Your task to perform on an android device: Set the phone to "Do not disturb". Image 0: 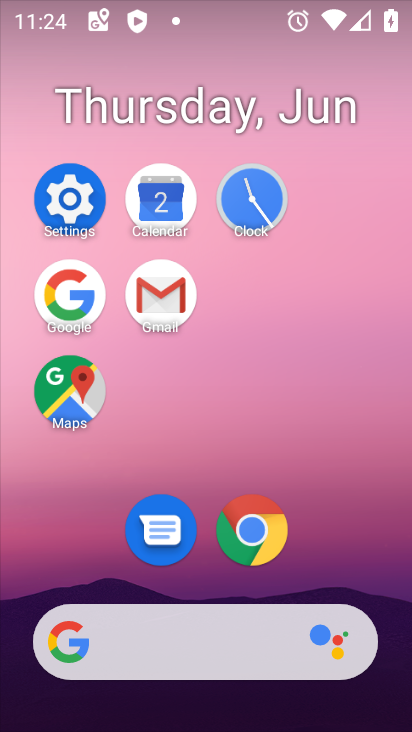
Step 0: click (94, 225)
Your task to perform on an android device: Set the phone to "Do not disturb". Image 1: 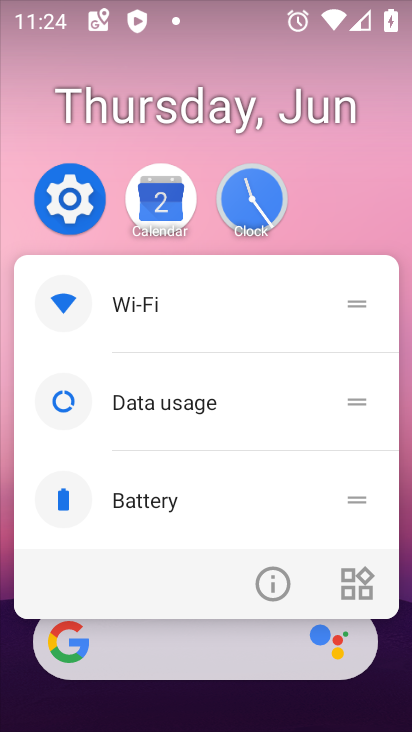
Step 1: click (87, 199)
Your task to perform on an android device: Set the phone to "Do not disturb". Image 2: 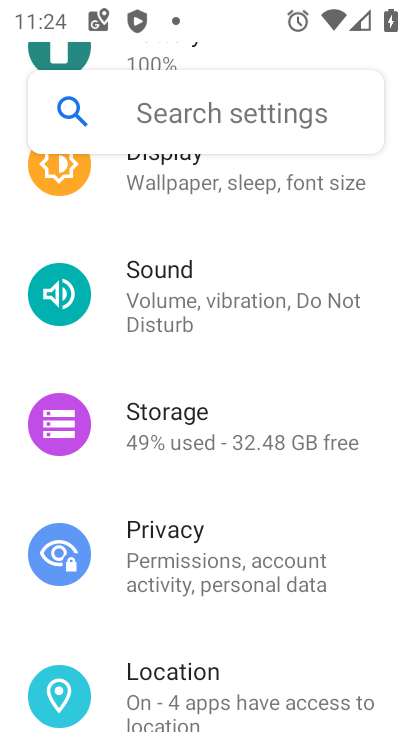
Step 2: click (251, 287)
Your task to perform on an android device: Set the phone to "Do not disturb". Image 3: 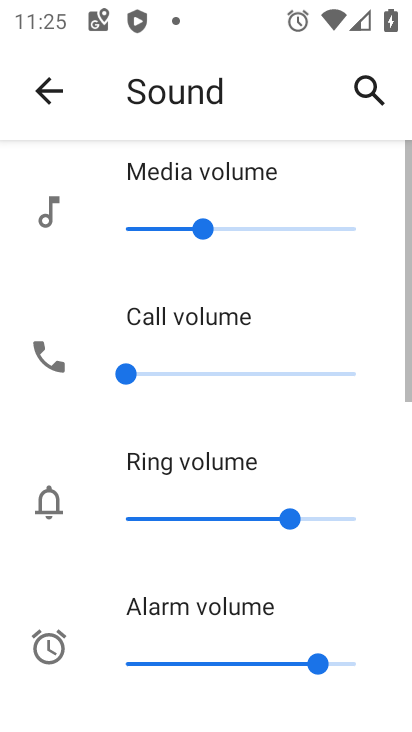
Step 3: drag from (275, 435) to (284, 130)
Your task to perform on an android device: Set the phone to "Do not disturb". Image 4: 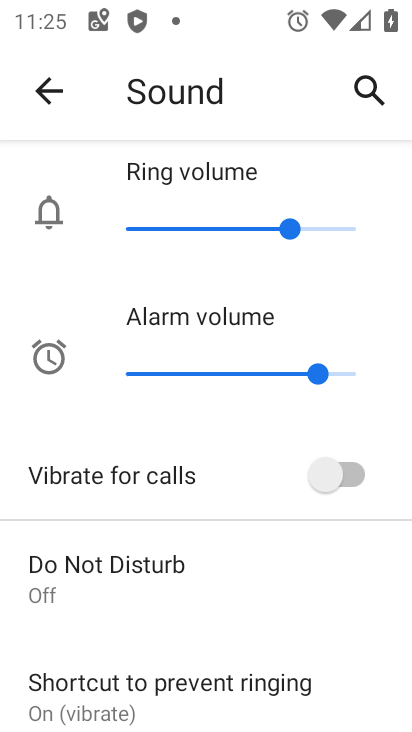
Step 4: drag from (215, 572) to (271, 231)
Your task to perform on an android device: Set the phone to "Do not disturb". Image 5: 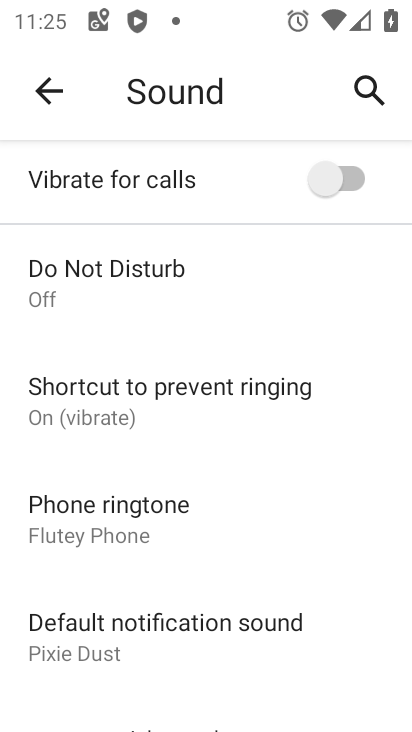
Step 5: click (140, 238)
Your task to perform on an android device: Set the phone to "Do not disturb". Image 6: 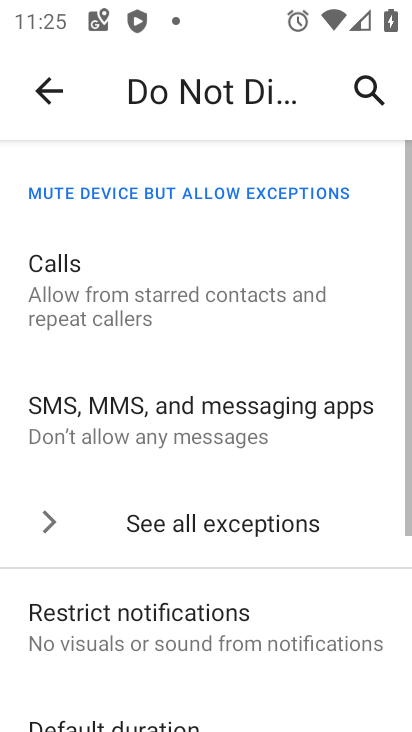
Step 6: drag from (277, 584) to (291, 190)
Your task to perform on an android device: Set the phone to "Do not disturb". Image 7: 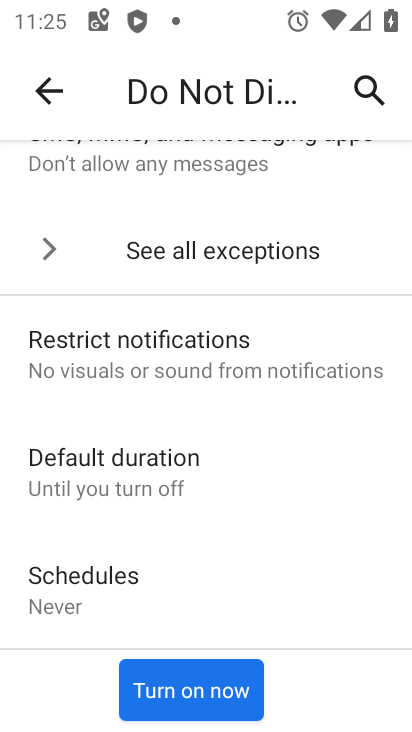
Step 7: drag from (161, 579) to (199, 234)
Your task to perform on an android device: Set the phone to "Do not disturb". Image 8: 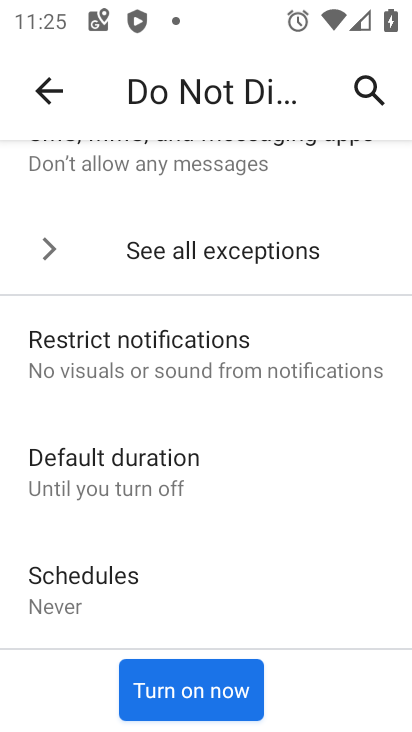
Step 8: click (173, 701)
Your task to perform on an android device: Set the phone to "Do not disturb". Image 9: 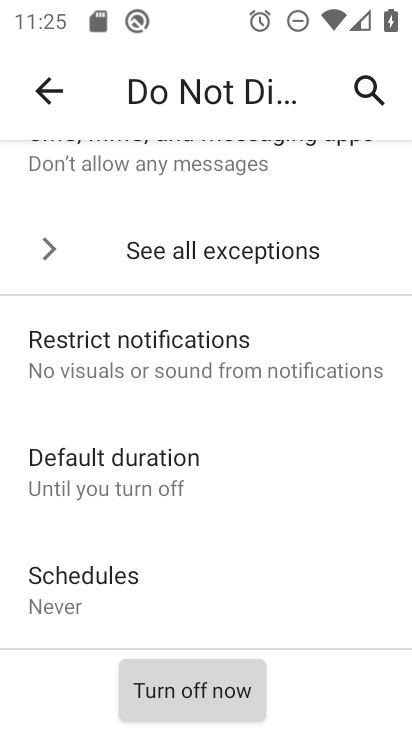
Step 9: task complete